Your task to perform on an android device: Open the map Image 0: 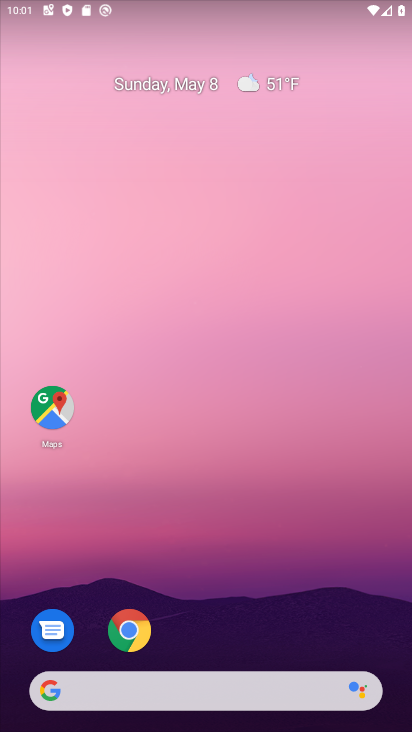
Step 0: drag from (364, 618) to (209, 75)
Your task to perform on an android device: Open the map Image 1: 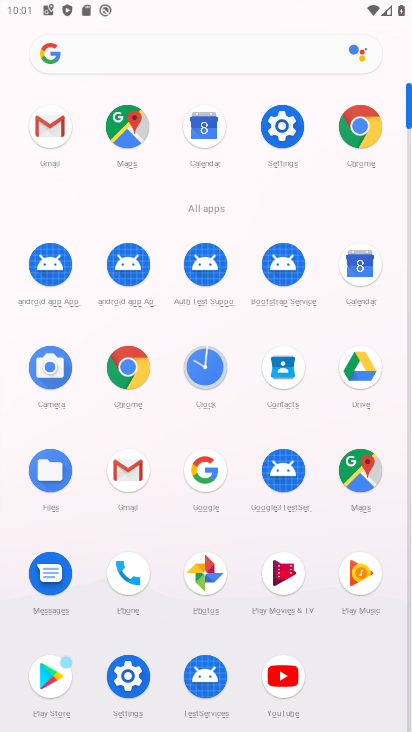
Step 1: click (355, 491)
Your task to perform on an android device: Open the map Image 2: 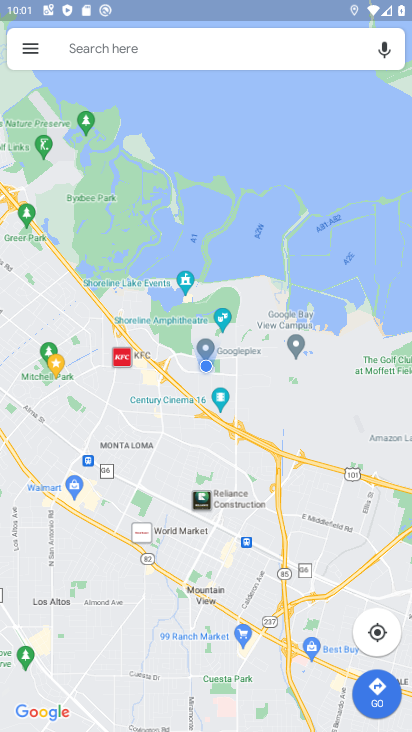
Step 2: task complete